Your task to perform on an android device: allow notifications from all sites in the chrome app Image 0: 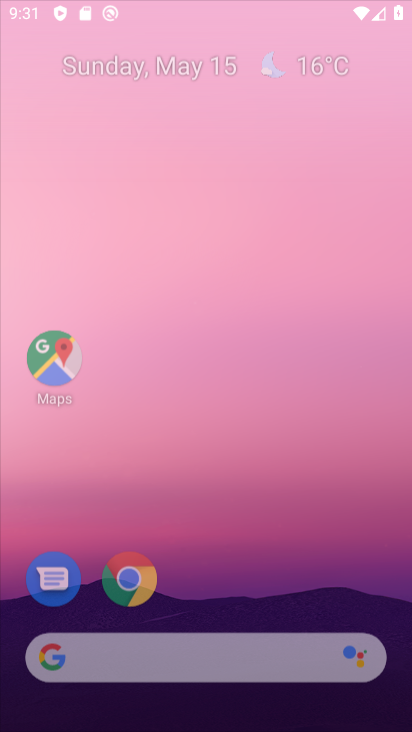
Step 0: drag from (217, 654) to (220, 23)
Your task to perform on an android device: allow notifications from all sites in the chrome app Image 1: 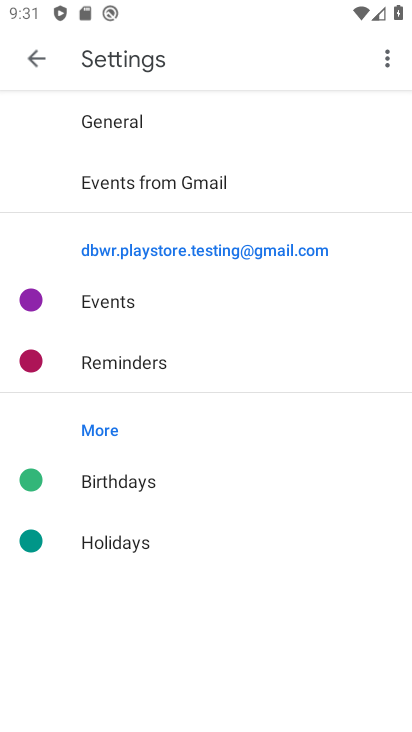
Step 1: press home button
Your task to perform on an android device: allow notifications from all sites in the chrome app Image 2: 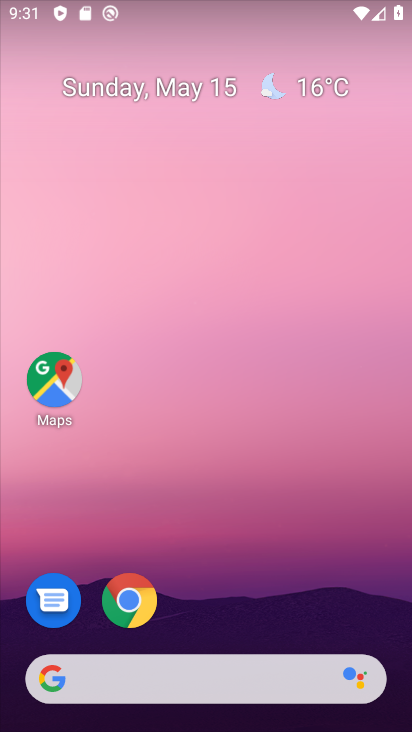
Step 2: click (134, 593)
Your task to perform on an android device: allow notifications from all sites in the chrome app Image 3: 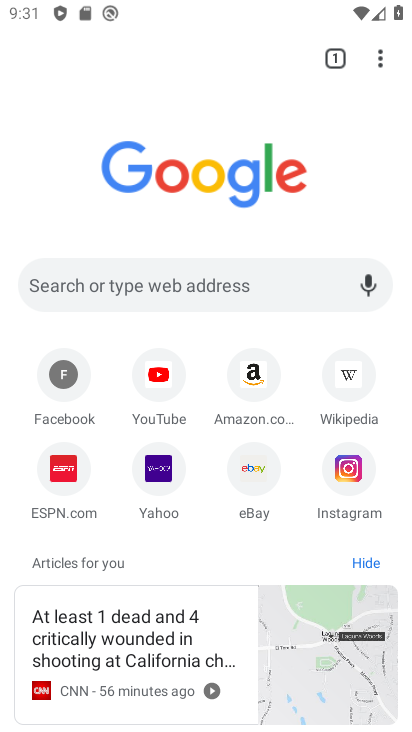
Step 3: click (386, 55)
Your task to perform on an android device: allow notifications from all sites in the chrome app Image 4: 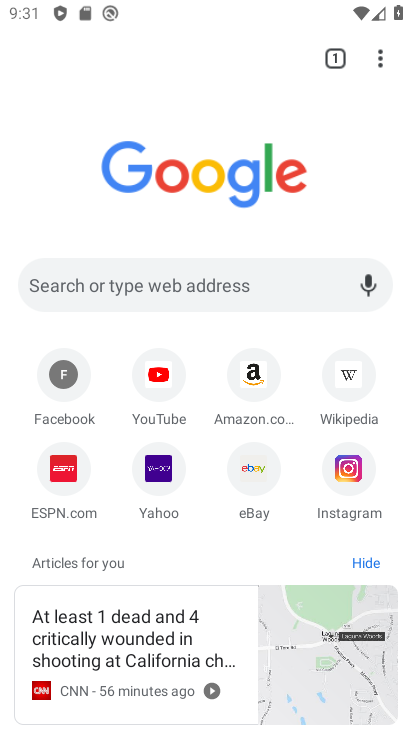
Step 4: drag from (385, 56) to (174, 485)
Your task to perform on an android device: allow notifications from all sites in the chrome app Image 5: 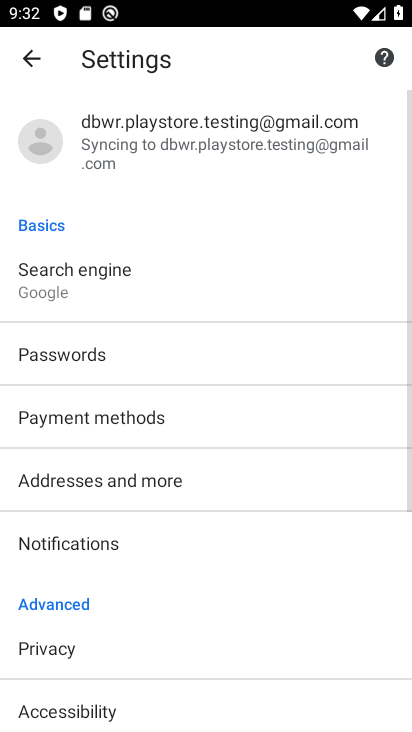
Step 5: drag from (112, 620) to (80, 28)
Your task to perform on an android device: allow notifications from all sites in the chrome app Image 6: 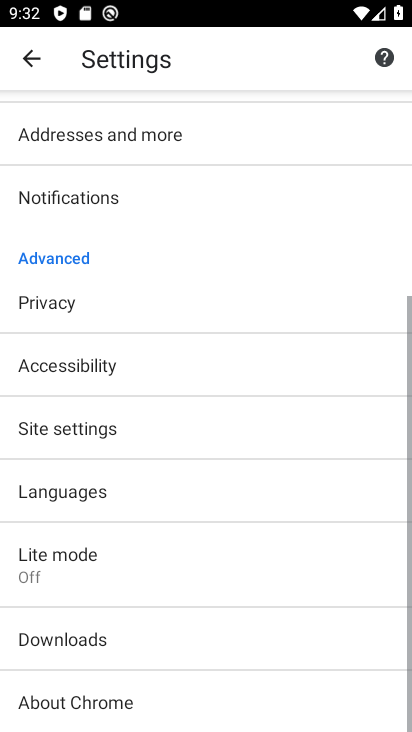
Step 6: click (69, 410)
Your task to perform on an android device: allow notifications from all sites in the chrome app Image 7: 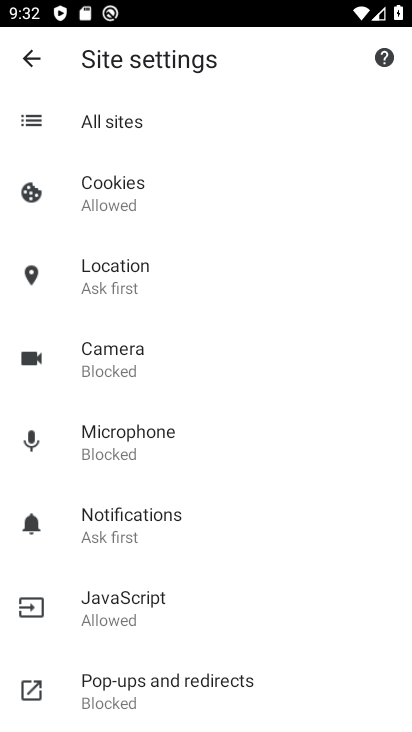
Step 7: click (139, 518)
Your task to perform on an android device: allow notifications from all sites in the chrome app Image 8: 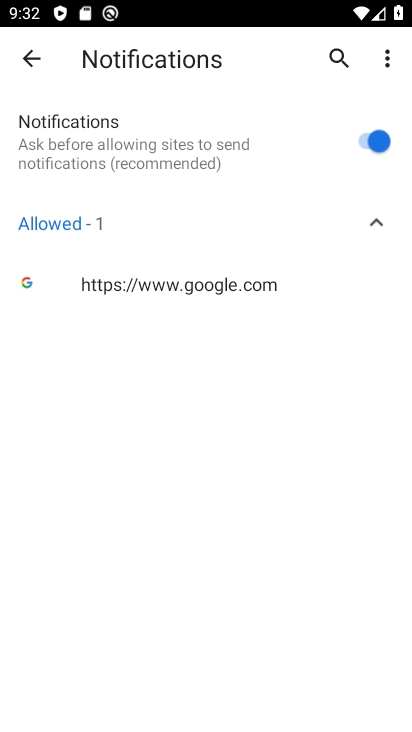
Step 8: task complete